Your task to perform on an android device: What's the weather? Image 0: 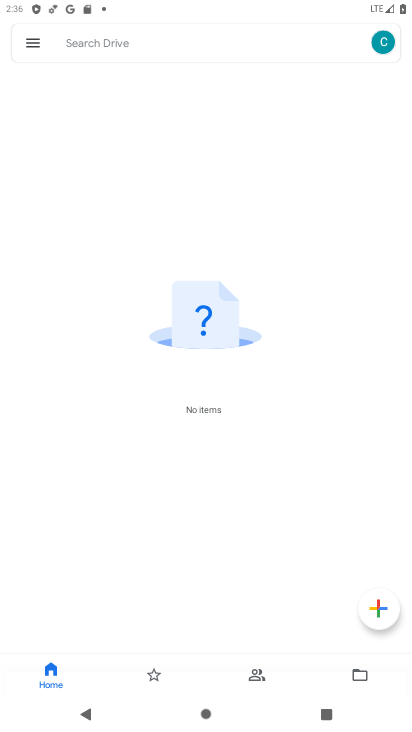
Step 0: press home button
Your task to perform on an android device: What's the weather? Image 1: 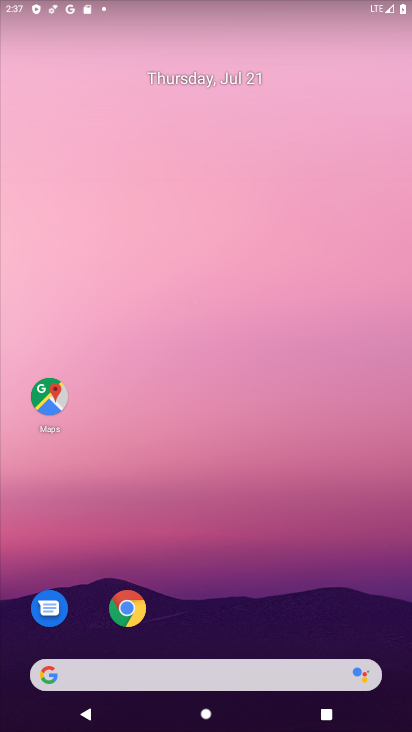
Step 1: click (208, 656)
Your task to perform on an android device: What's the weather? Image 2: 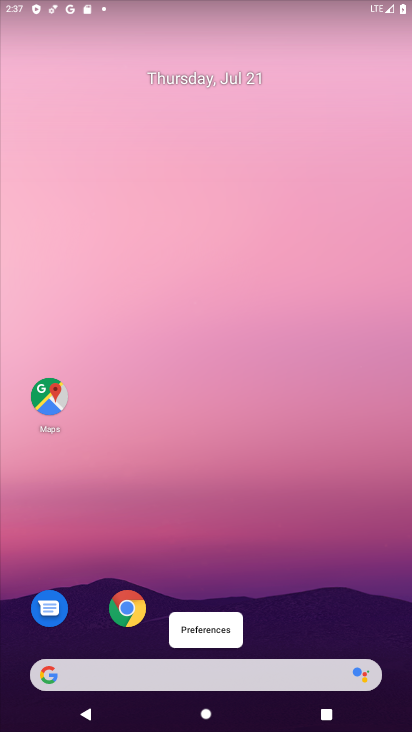
Step 2: click (210, 669)
Your task to perform on an android device: What's the weather? Image 3: 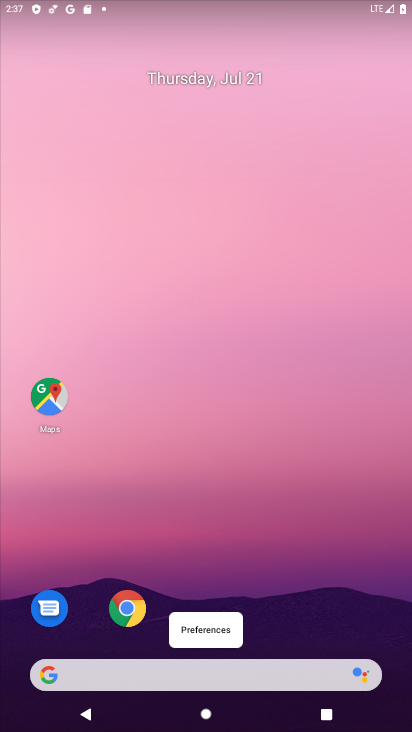
Step 3: click (219, 668)
Your task to perform on an android device: What's the weather? Image 4: 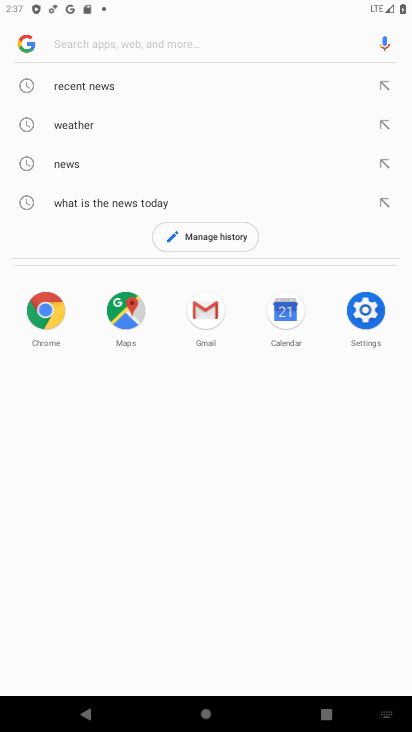
Step 4: click (39, 129)
Your task to perform on an android device: What's the weather? Image 5: 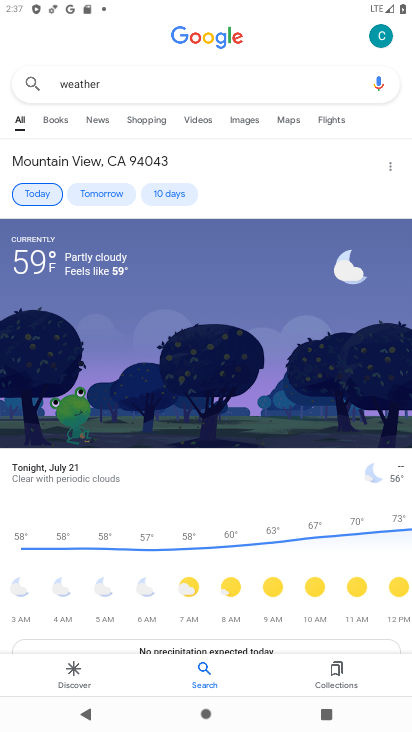
Step 5: task complete